Your task to perform on an android device: toggle priority inbox in the gmail app Image 0: 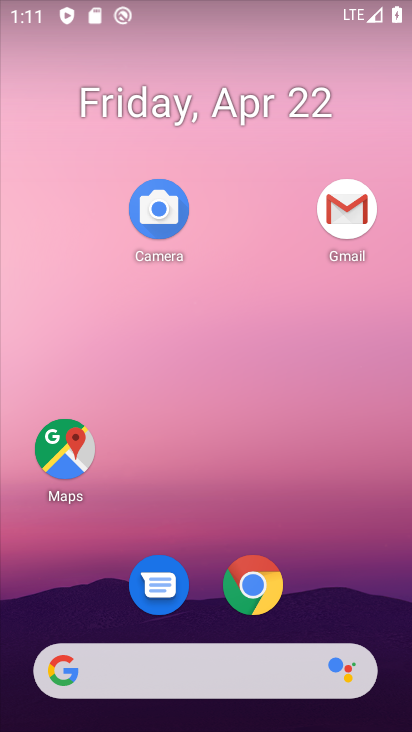
Step 0: click (341, 212)
Your task to perform on an android device: toggle priority inbox in the gmail app Image 1: 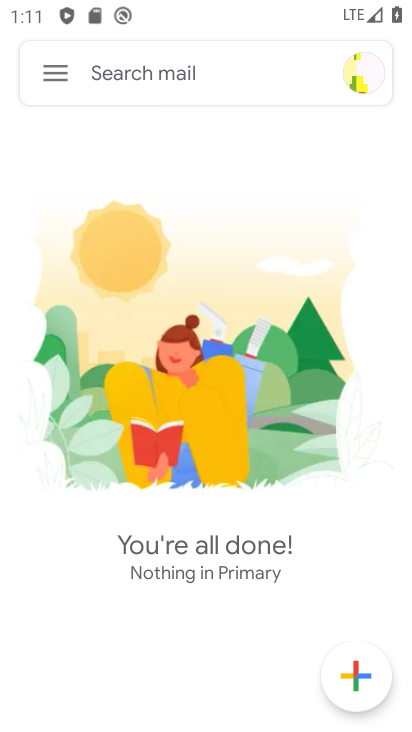
Step 1: click (59, 76)
Your task to perform on an android device: toggle priority inbox in the gmail app Image 2: 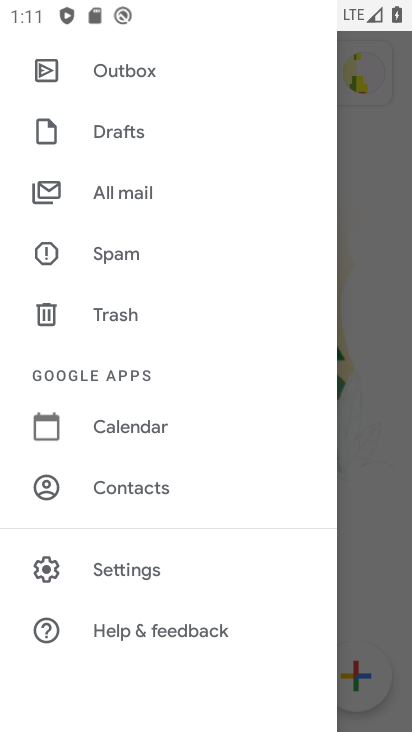
Step 2: click (144, 563)
Your task to perform on an android device: toggle priority inbox in the gmail app Image 3: 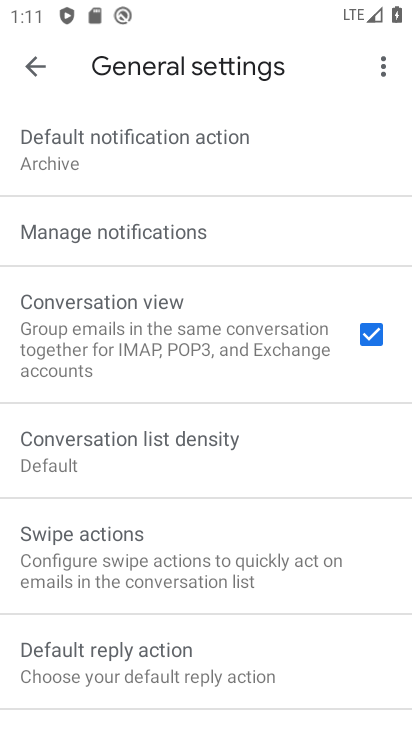
Step 3: drag from (212, 237) to (225, 573)
Your task to perform on an android device: toggle priority inbox in the gmail app Image 4: 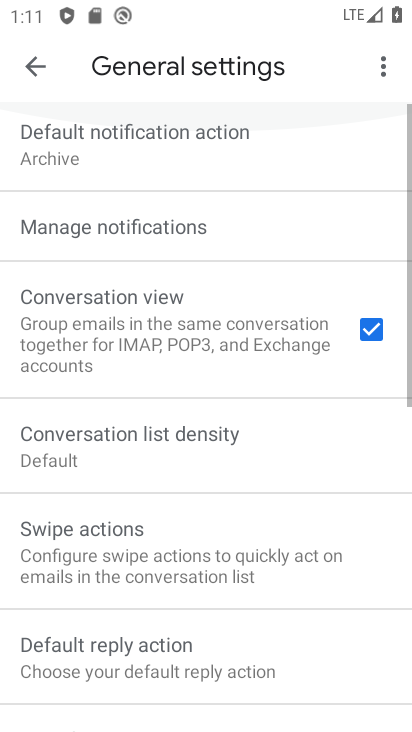
Step 4: drag from (231, 569) to (220, 159)
Your task to perform on an android device: toggle priority inbox in the gmail app Image 5: 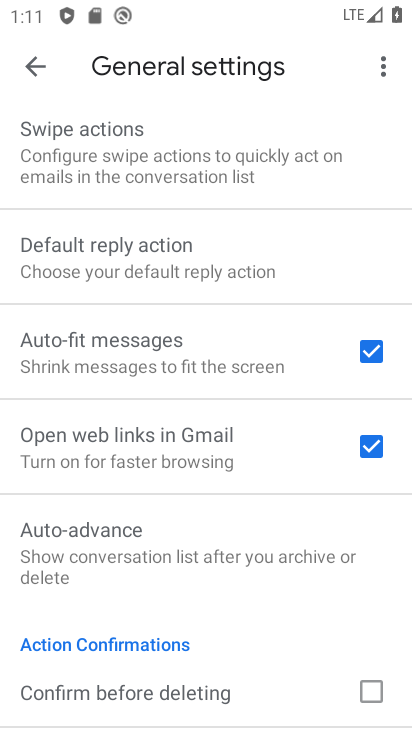
Step 5: drag from (201, 551) to (189, 235)
Your task to perform on an android device: toggle priority inbox in the gmail app Image 6: 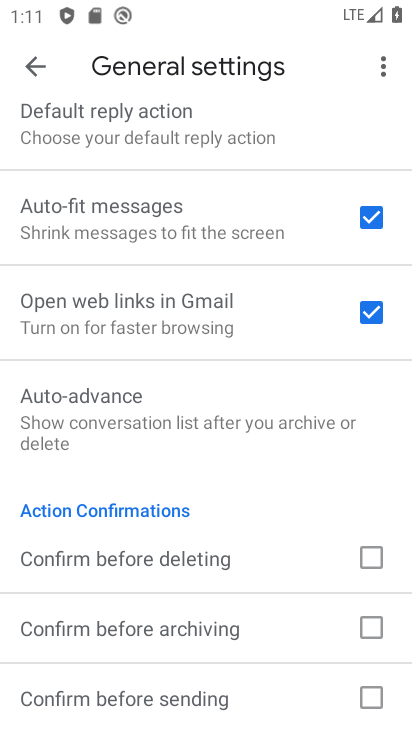
Step 6: click (36, 61)
Your task to perform on an android device: toggle priority inbox in the gmail app Image 7: 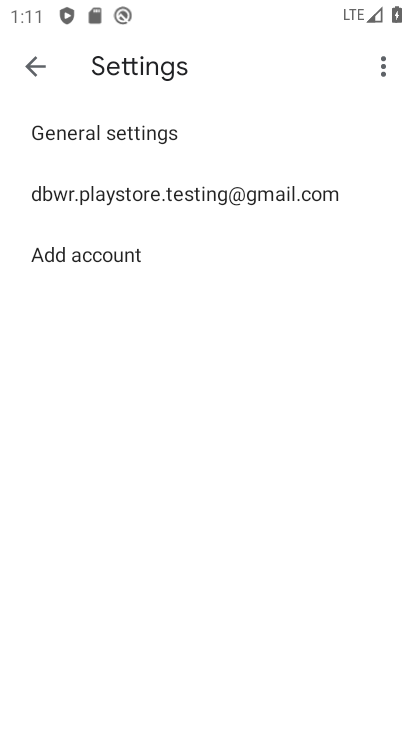
Step 7: click (208, 188)
Your task to perform on an android device: toggle priority inbox in the gmail app Image 8: 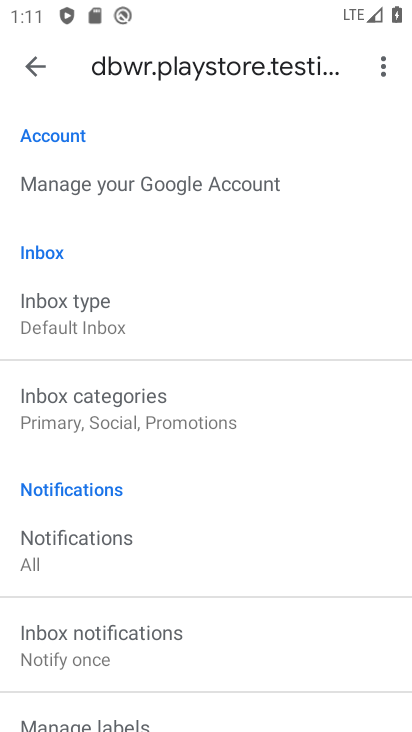
Step 8: click (90, 314)
Your task to perform on an android device: toggle priority inbox in the gmail app Image 9: 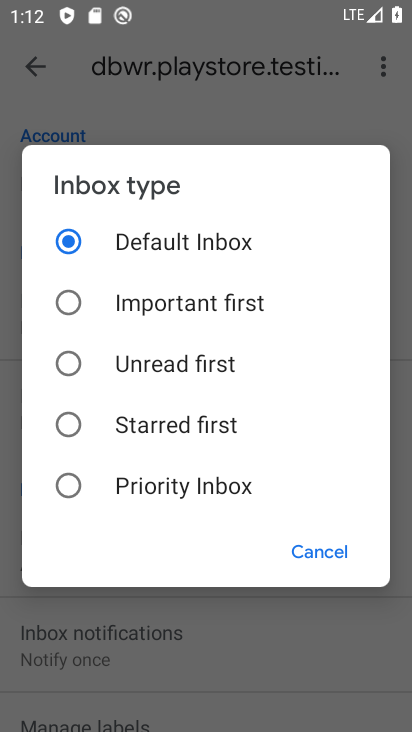
Step 9: click (67, 477)
Your task to perform on an android device: toggle priority inbox in the gmail app Image 10: 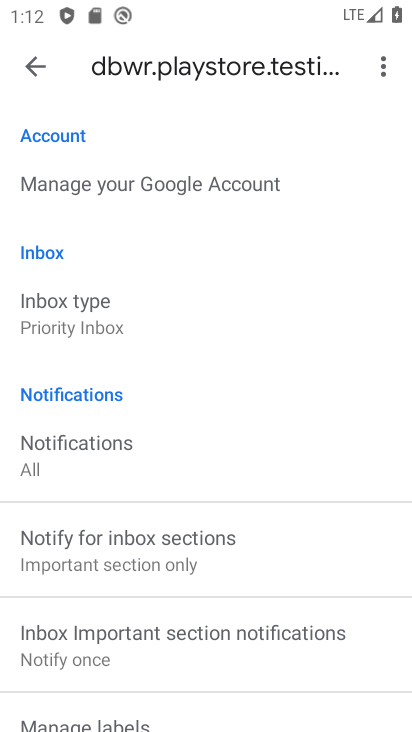
Step 10: task complete